Your task to perform on an android device: Open calendar and show me the third week of next month Image 0: 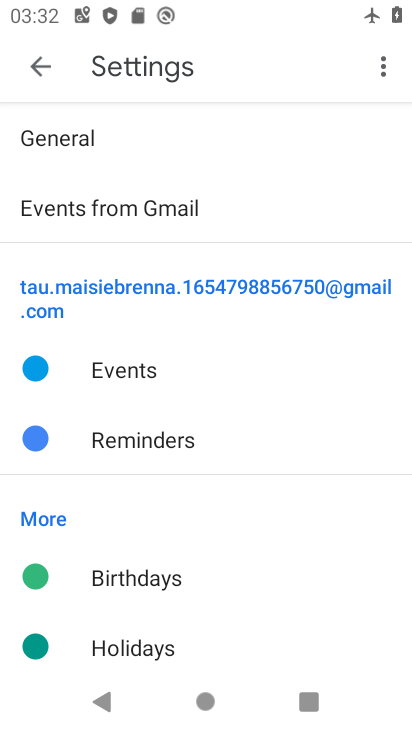
Step 0: press home button
Your task to perform on an android device: Open calendar and show me the third week of next month Image 1: 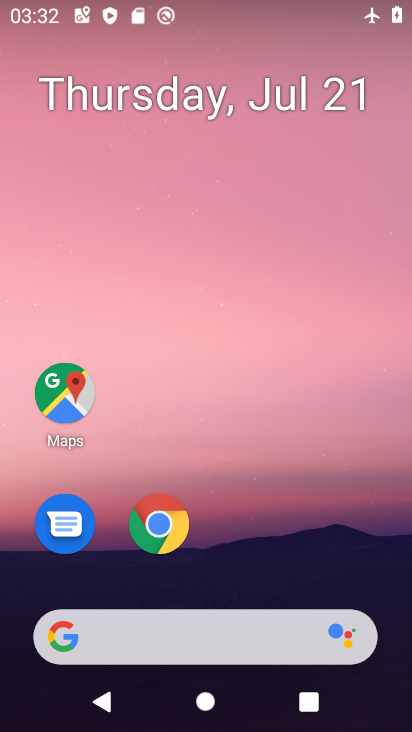
Step 1: drag from (274, 558) to (343, 0)
Your task to perform on an android device: Open calendar and show me the third week of next month Image 2: 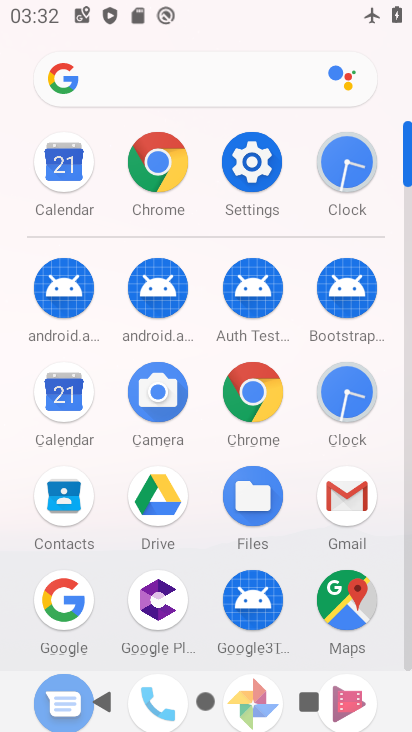
Step 2: click (69, 169)
Your task to perform on an android device: Open calendar and show me the third week of next month Image 3: 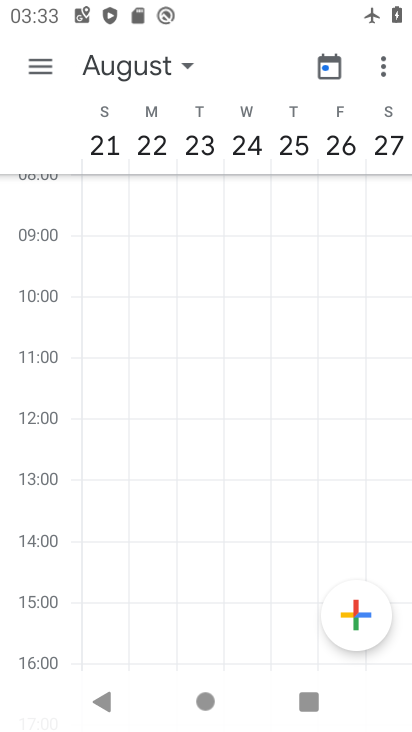
Step 3: task complete